Your task to perform on an android device: Show the shopping cart on bestbuy. Search for "usb-a" on bestbuy, select the first entry, add it to the cart, then select checkout. Image 0: 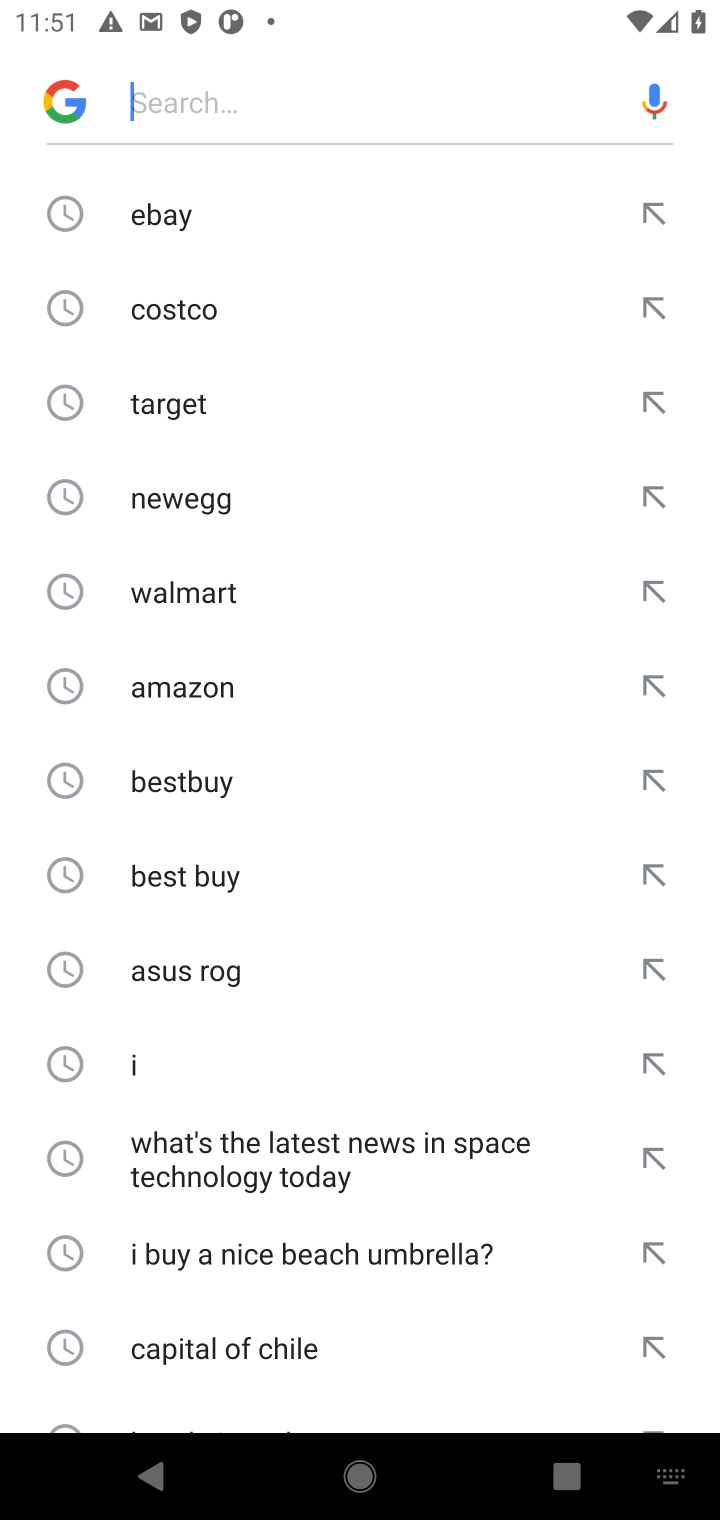
Step 0: press home button
Your task to perform on an android device: Show the shopping cart on bestbuy. Search for "usb-a" on bestbuy, select the first entry, add it to the cart, then select checkout. Image 1: 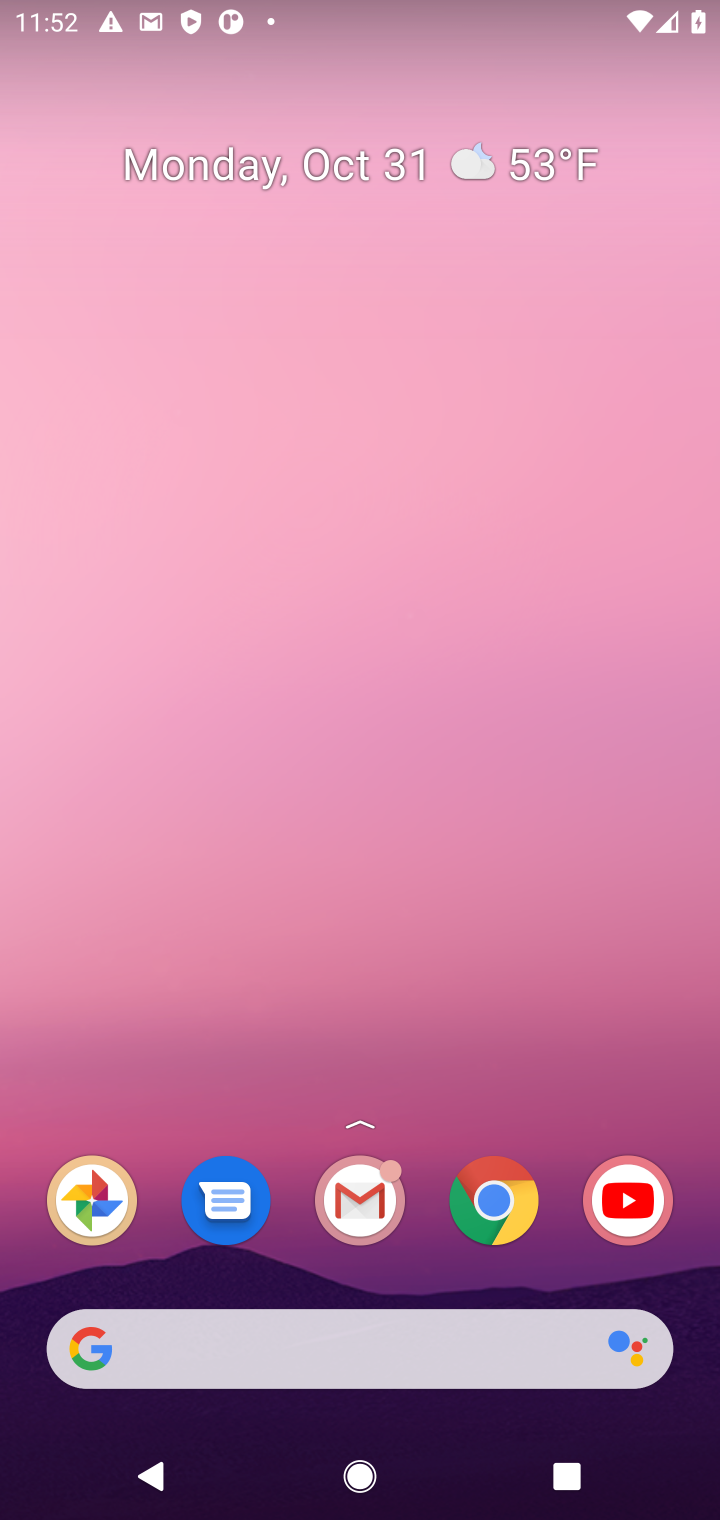
Step 1: click (499, 1209)
Your task to perform on an android device: Show the shopping cart on bestbuy. Search for "usb-a" on bestbuy, select the first entry, add it to the cart, then select checkout. Image 2: 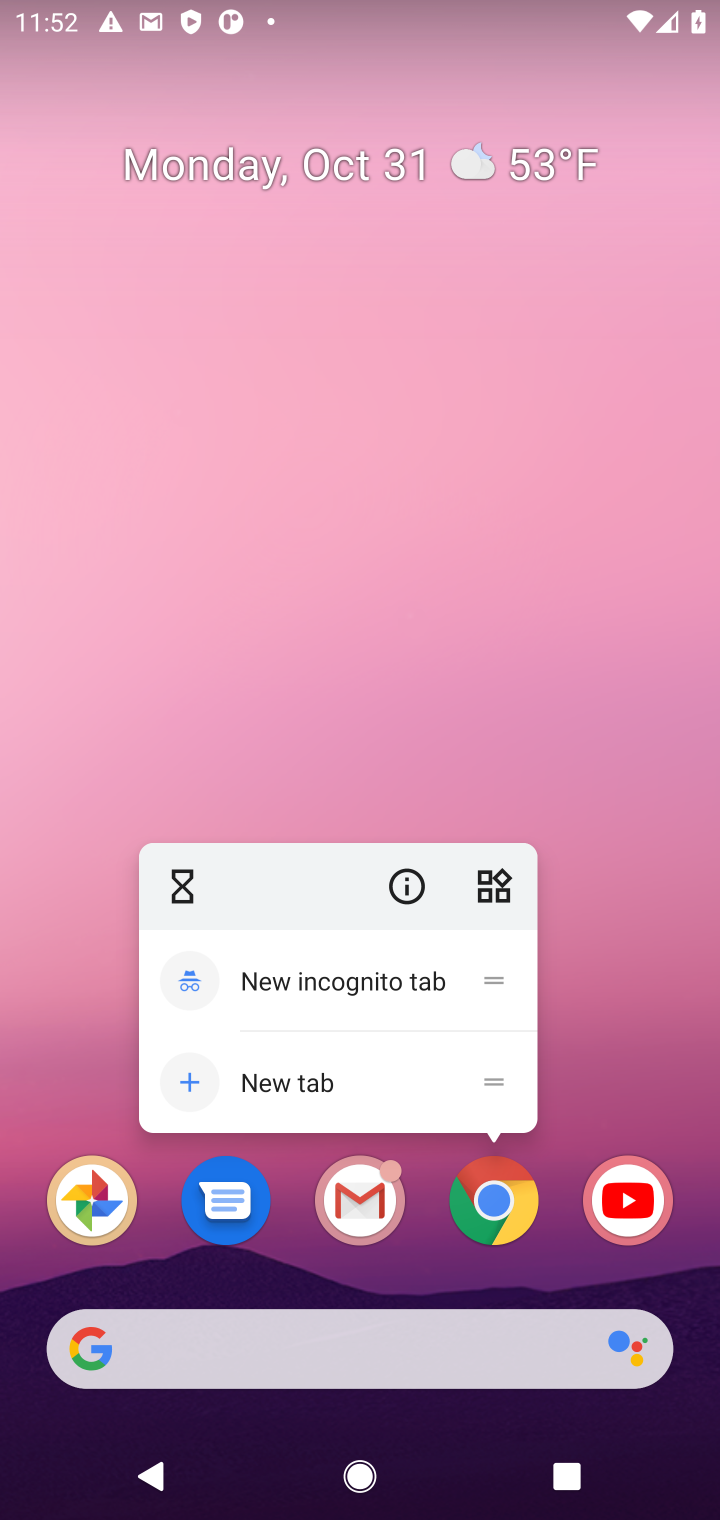
Step 2: click (499, 1209)
Your task to perform on an android device: Show the shopping cart on bestbuy. Search for "usb-a" on bestbuy, select the first entry, add it to the cart, then select checkout. Image 3: 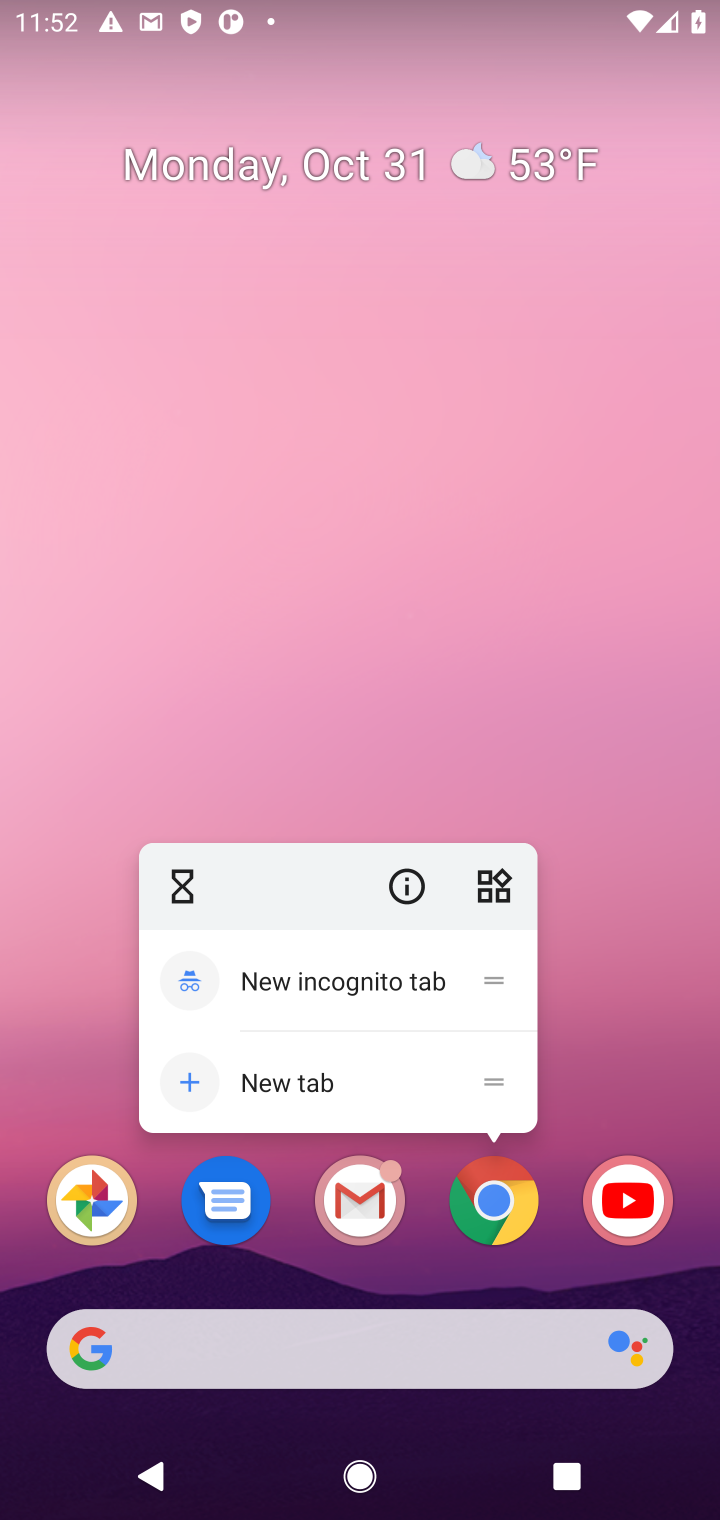
Step 3: click (486, 1227)
Your task to perform on an android device: Show the shopping cart on bestbuy. Search for "usb-a" on bestbuy, select the first entry, add it to the cart, then select checkout. Image 4: 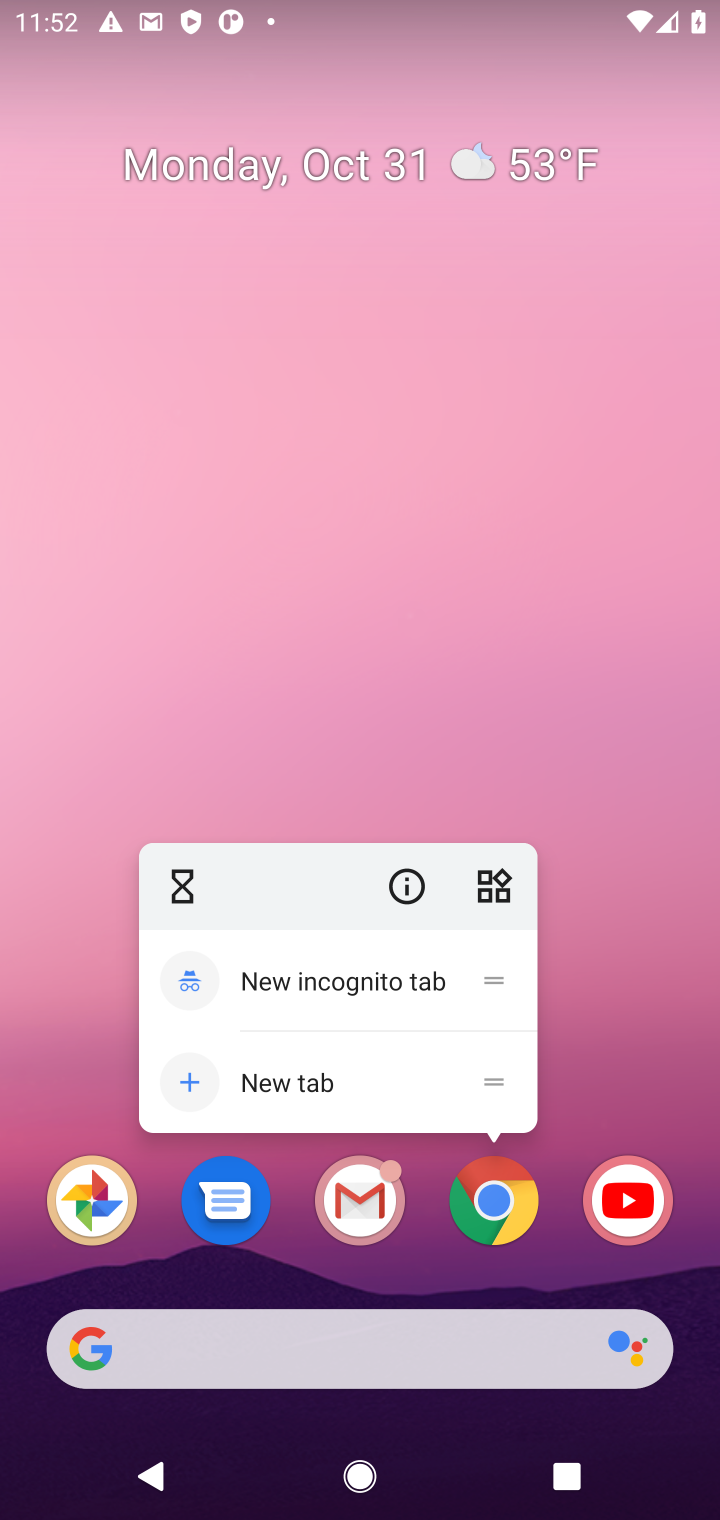
Step 4: click (495, 1240)
Your task to perform on an android device: Show the shopping cart on bestbuy. Search for "usb-a" on bestbuy, select the first entry, add it to the cart, then select checkout. Image 5: 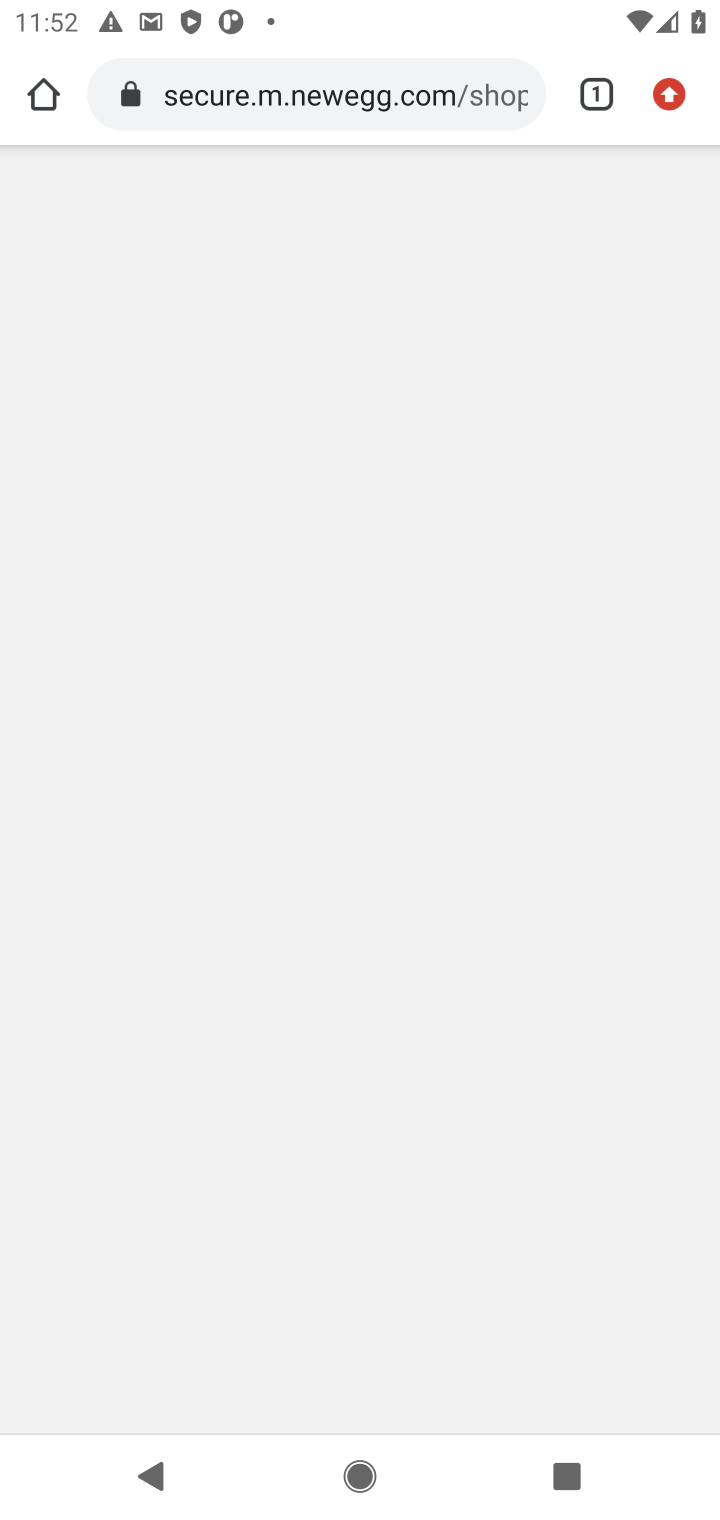
Step 5: click (269, 101)
Your task to perform on an android device: Show the shopping cart on bestbuy. Search for "usb-a" on bestbuy, select the first entry, add it to the cart, then select checkout. Image 6: 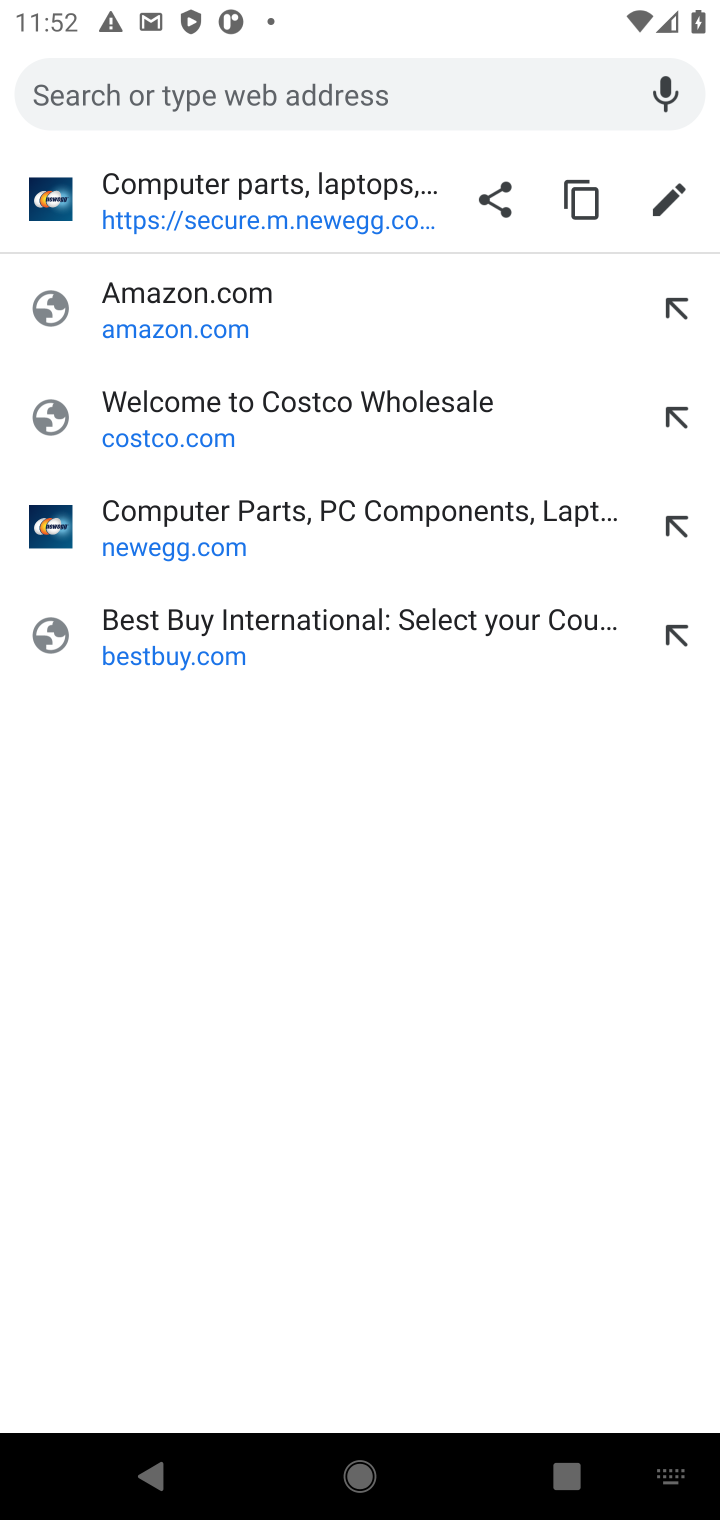
Step 6: click (238, 628)
Your task to perform on an android device: Show the shopping cart on bestbuy. Search for "usb-a" on bestbuy, select the first entry, add it to the cart, then select checkout. Image 7: 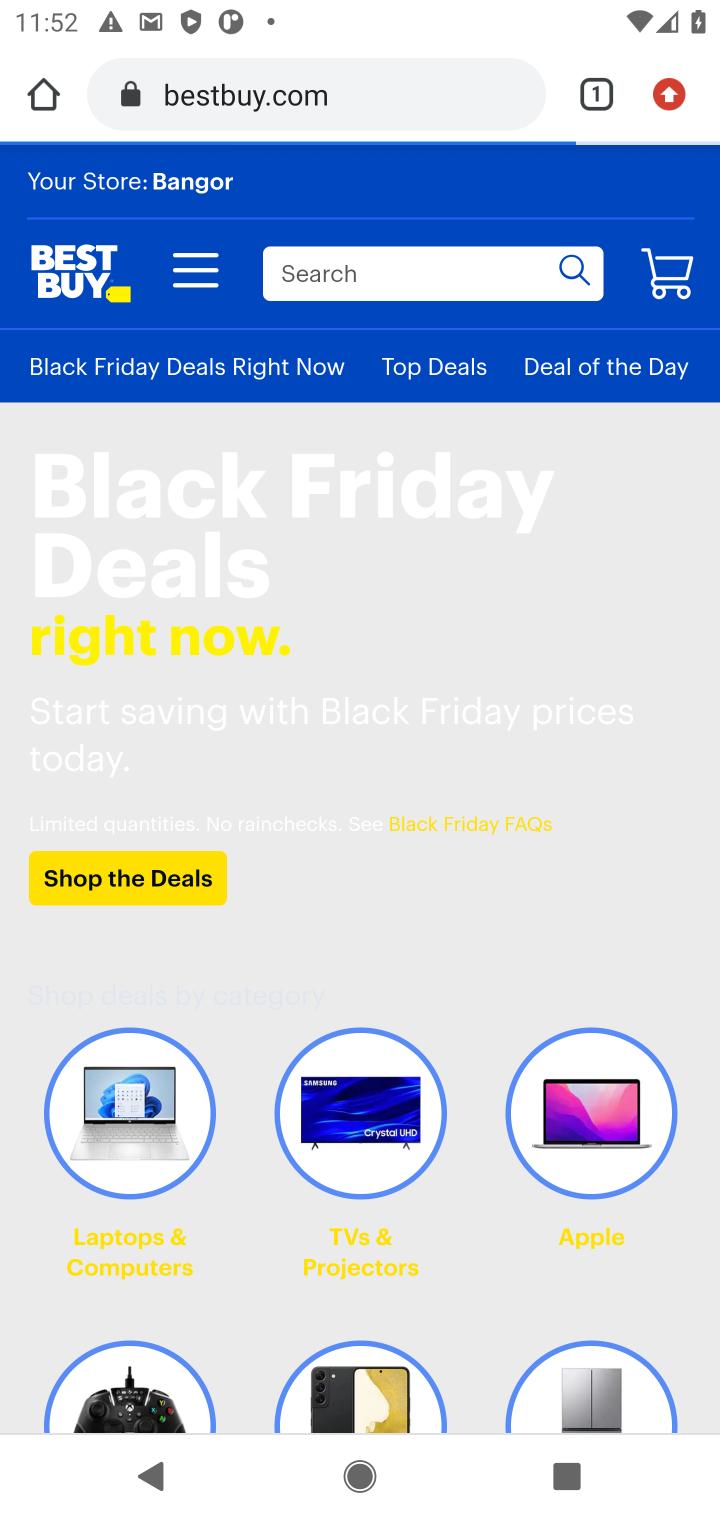
Step 7: click (370, 269)
Your task to perform on an android device: Show the shopping cart on bestbuy. Search for "usb-a" on bestbuy, select the first entry, add it to the cart, then select checkout. Image 8: 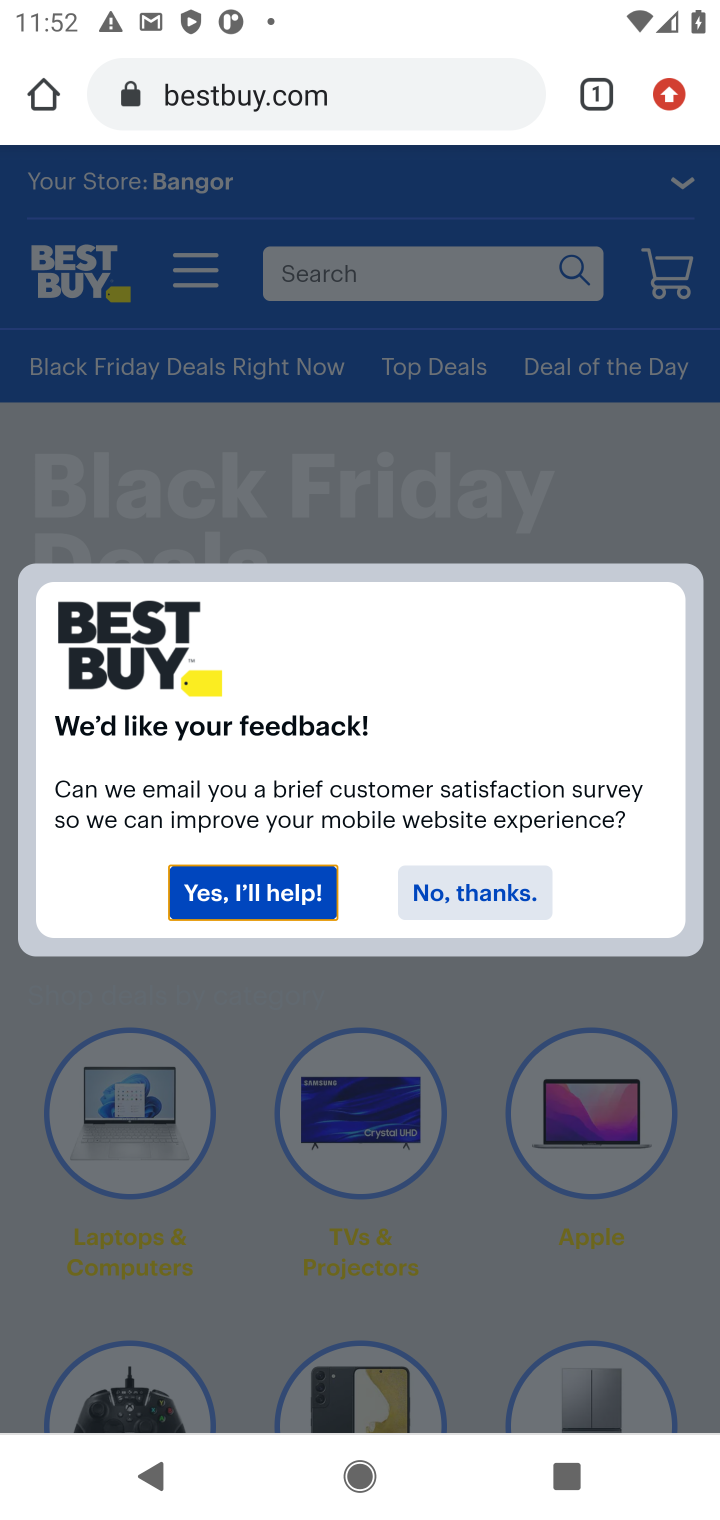
Step 8: type "usb-a"
Your task to perform on an android device: Show the shopping cart on bestbuy. Search for "usb-a" on bestbuy, select the first entry, add it to the cart, then select checkout. Image 9: 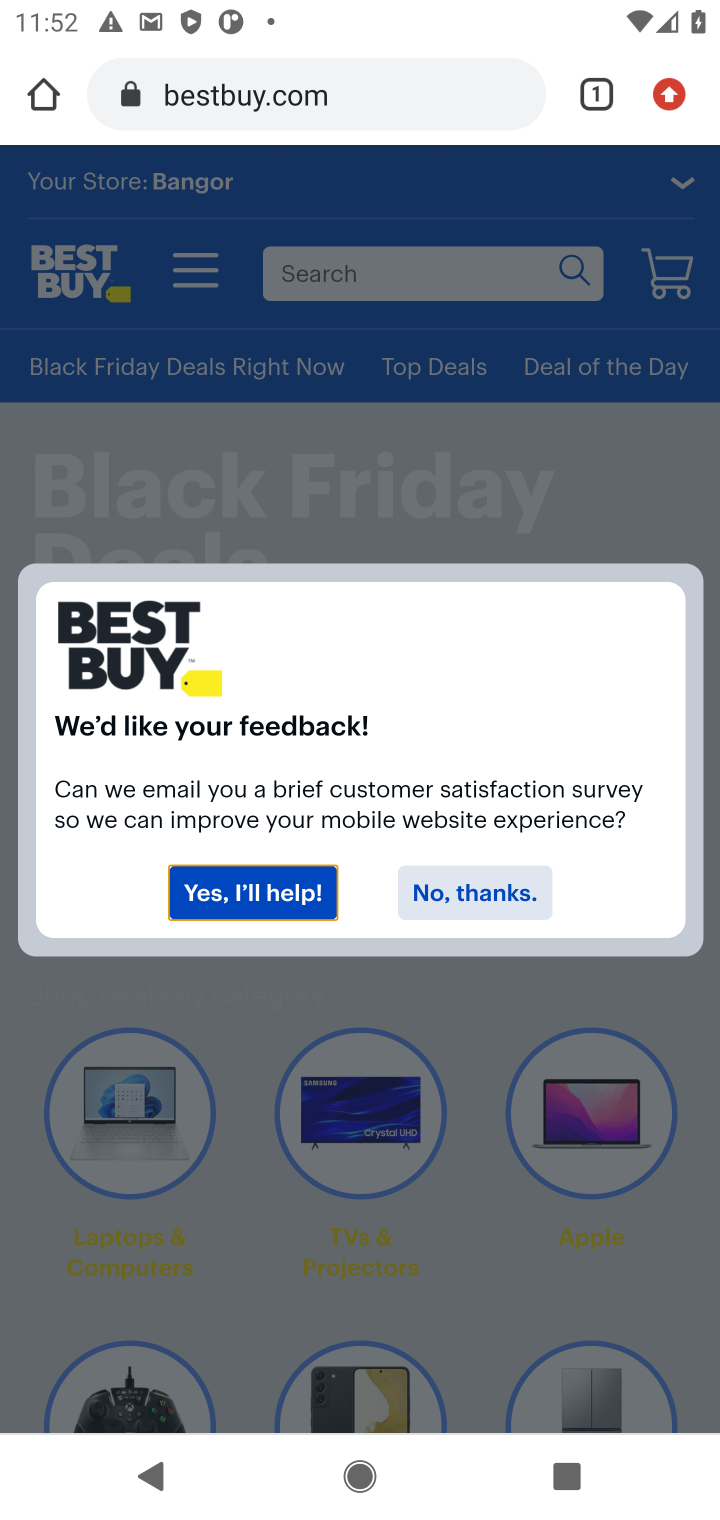
Step 9: click (423, 888)
Your task to perform on an android device: Show the shopping cart on bestbuy. Search for "usb-a" on bestbuy, select the first entry, add it to the cart, then select checkout. Image 10: 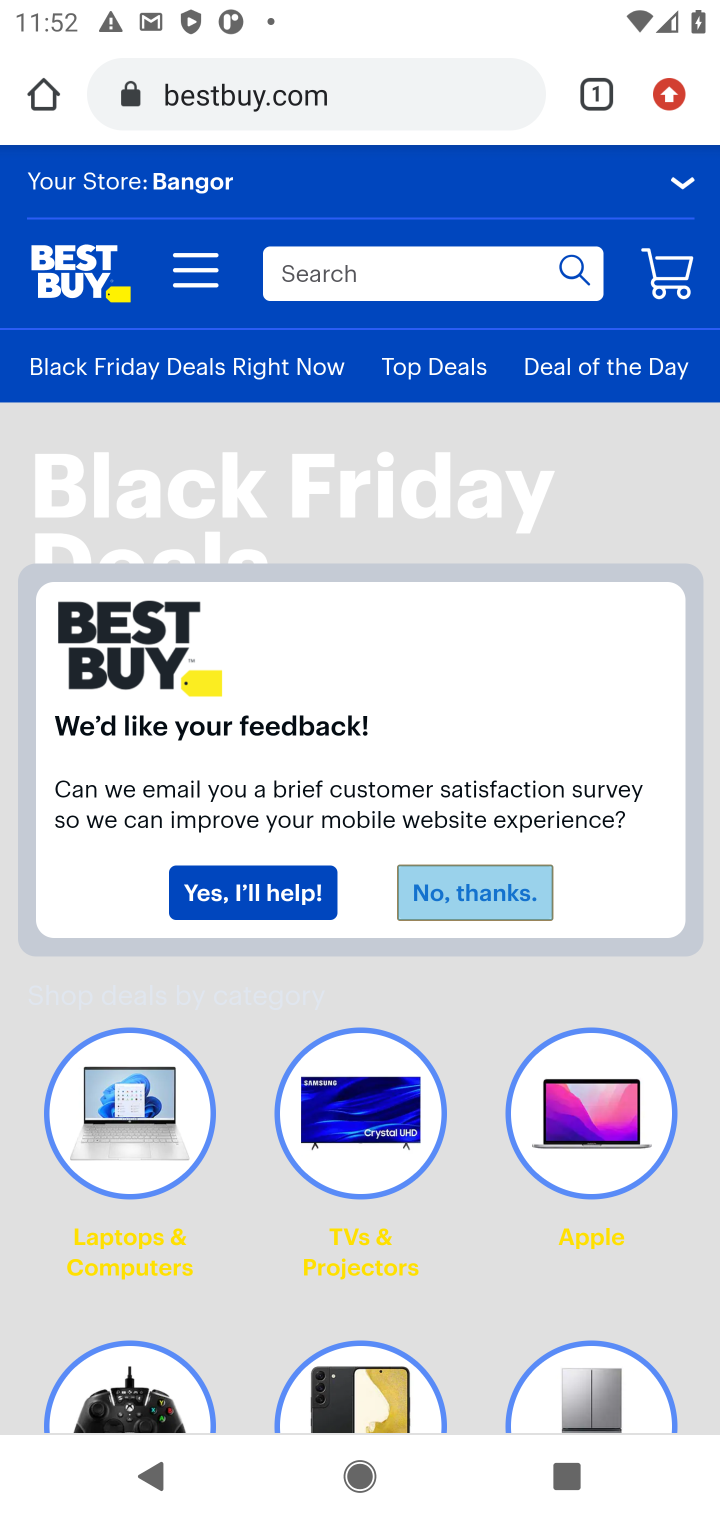
Step 10: click (348, 269)
Your task to perform on an android device: Show the shopping cart on bestbuy. Search for "usb-a" on bestbuy, select the first entry, add it to the cart, then select checkout. Image 11: 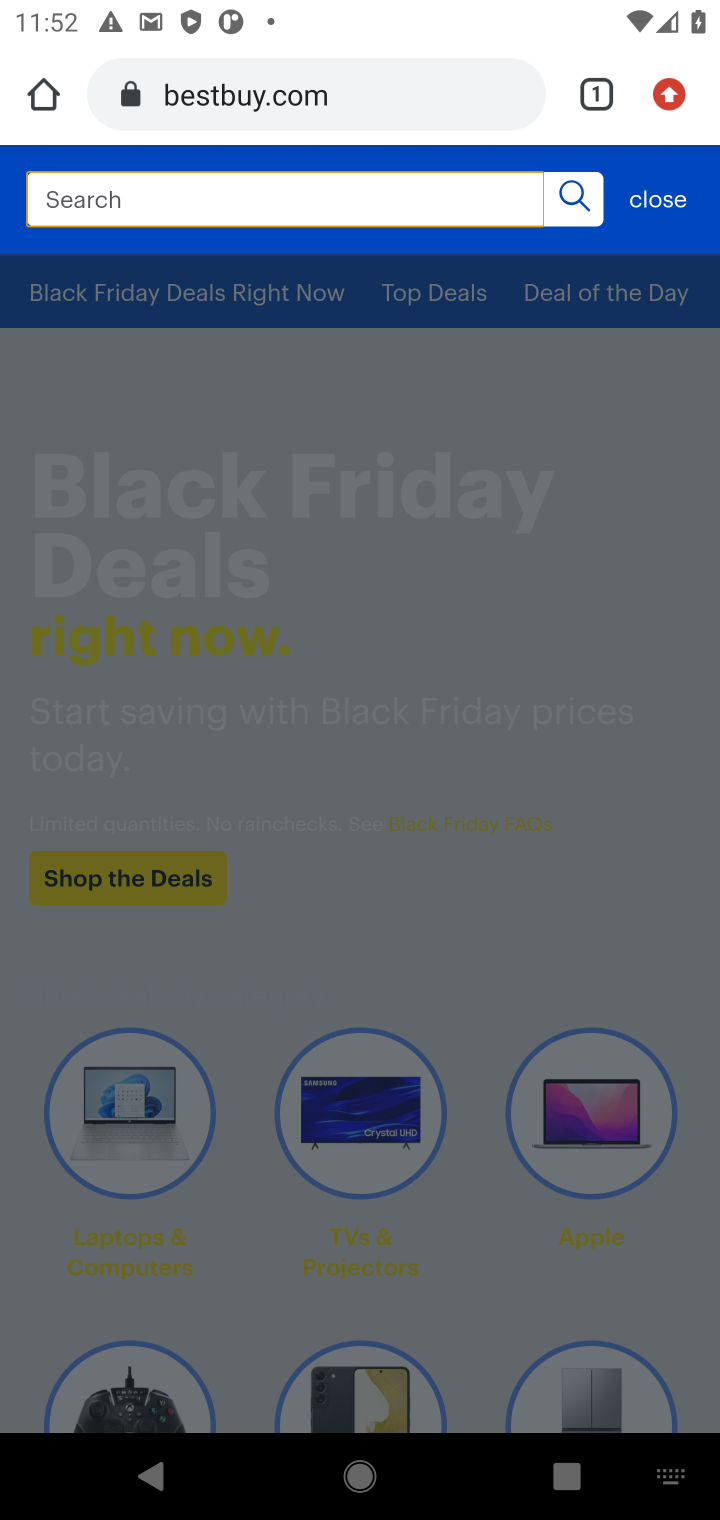
Step 11: click (468, 884)
Your task to perform on an android device: Show the shopping cart on bestbuy. Search for "usb-a" on bestbuy, select the first entry, add it to the cart, then select checkout. Image 12: 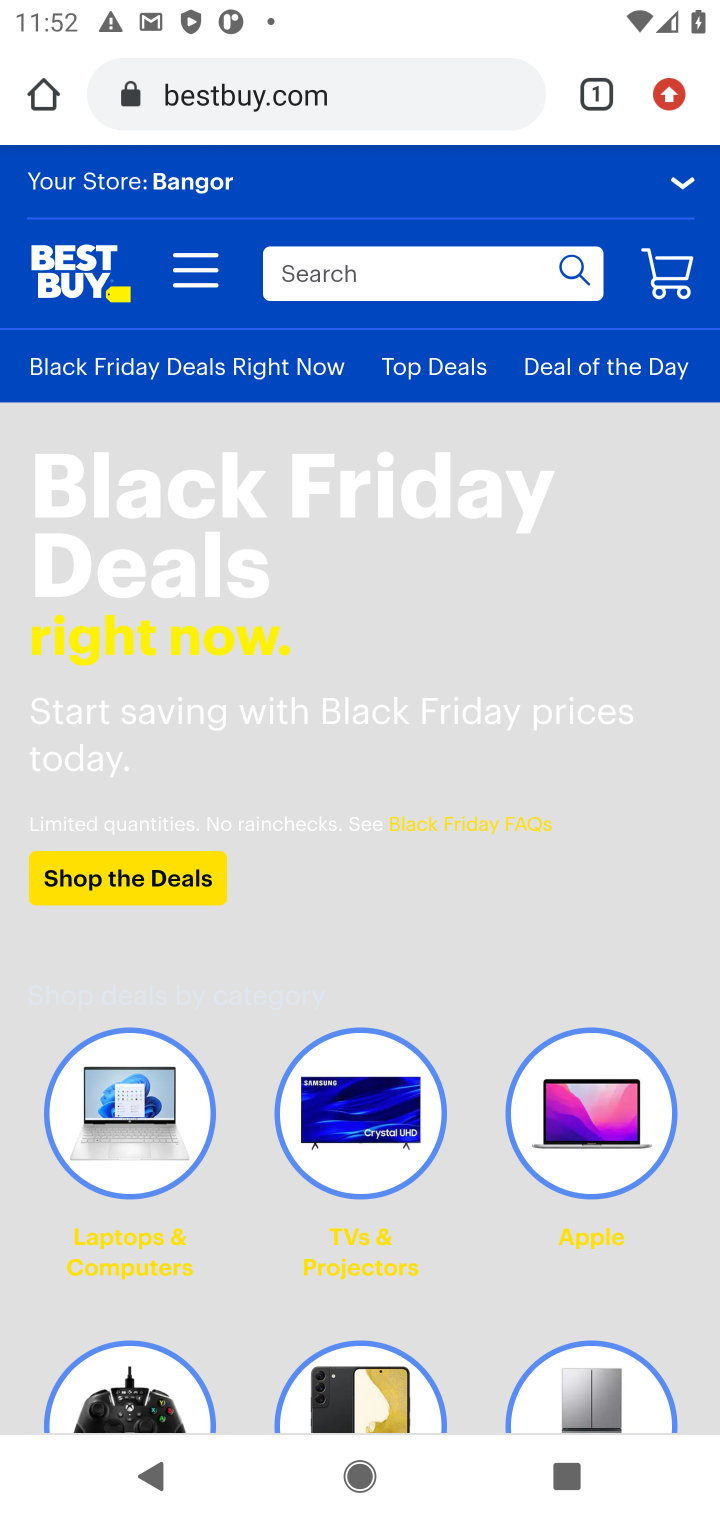
Step 12: click (383, 276)
Your task to perform on an android device: Show the shopping cart on bestbuy. Search for "usb-a" on bestbuy, select the first entry, add it to the cart, then select checkout. Image 13: 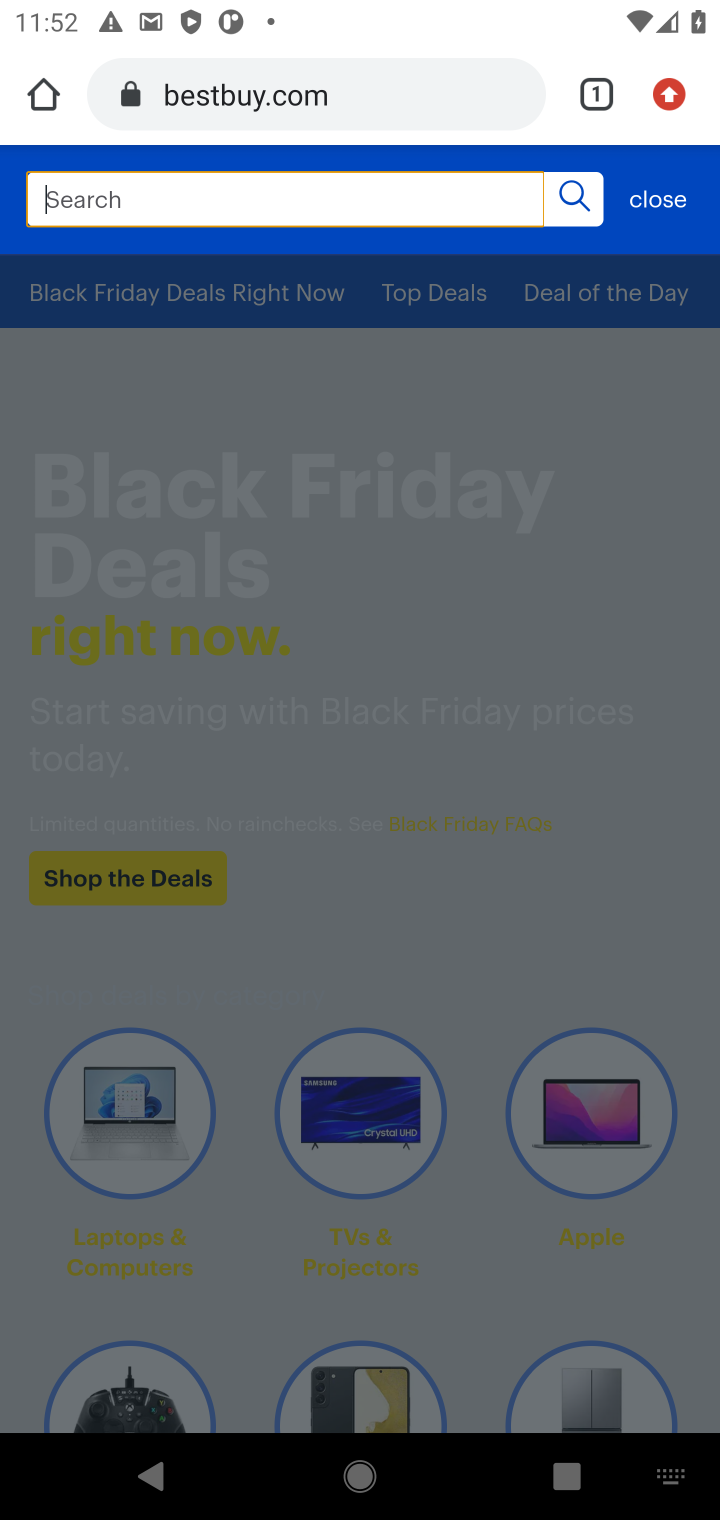
Step 13: type "usb-a"
Your task to perform on an android device: Show the shopping cart on bestbuy. Search for "usb-a" on bestbuy, select the first entry, add it to the cart, then select checkout. Image 14: 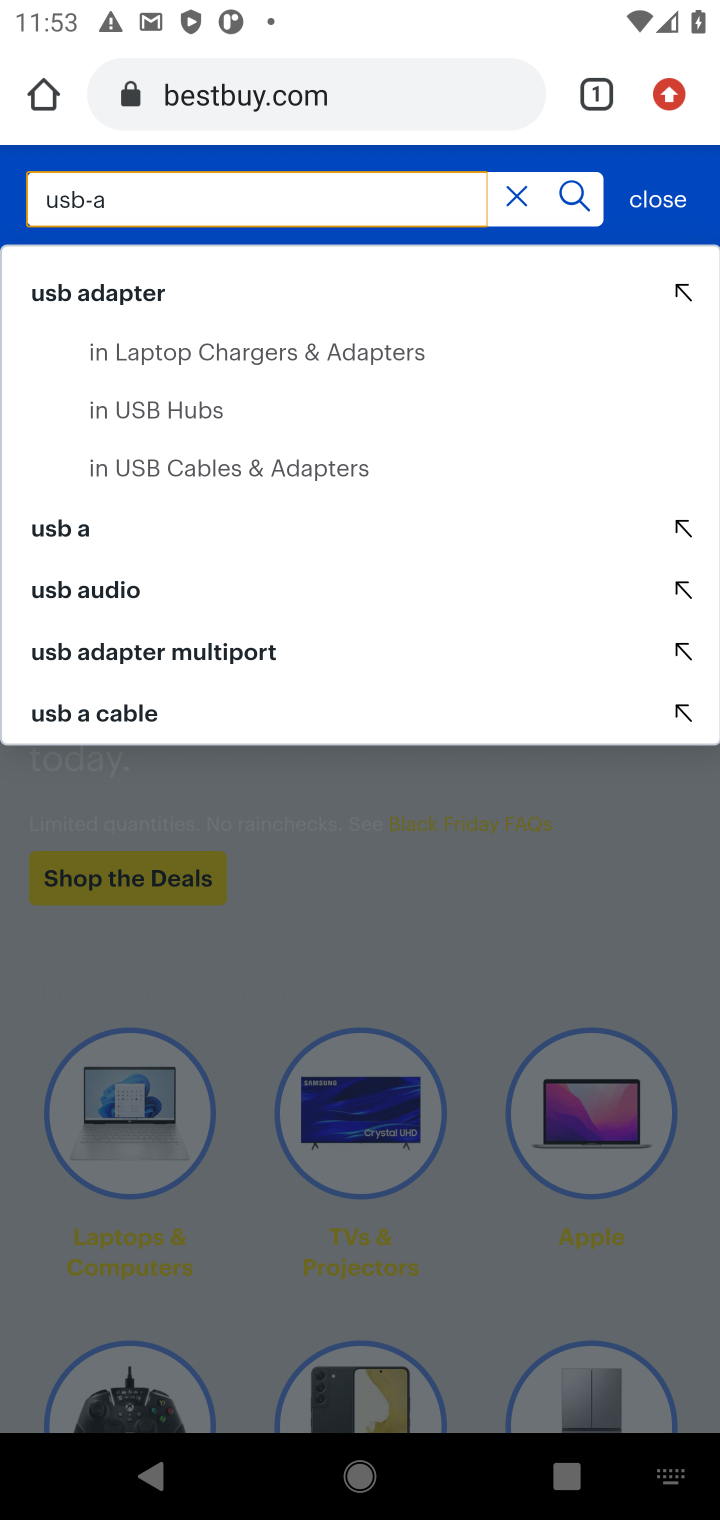
Step 14: click (571, 205)
Your task to perform on an android device: Show the shopping cart on bestbuy. Search for "usb-a" on bestbuy, select the first entry, add it to the cart, then select checkout. Image 15: 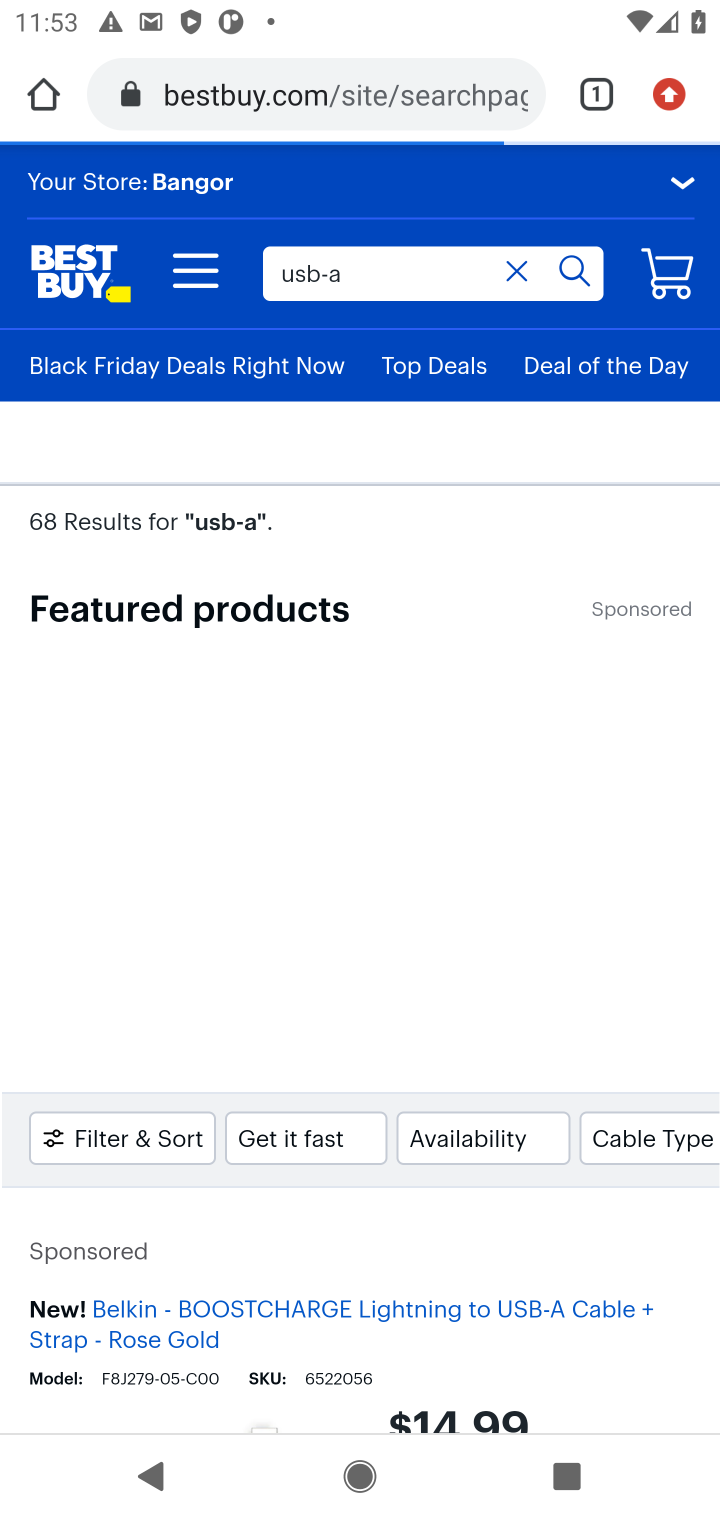
Step 15: drag from (530, 1159) to (554, 483)
Your task to perform on an android device: Show the shopping cart on bestbuy. Search for "usb-a" on bestbuy, select the first entry, add it to the cart, then select checkout. Image 16: 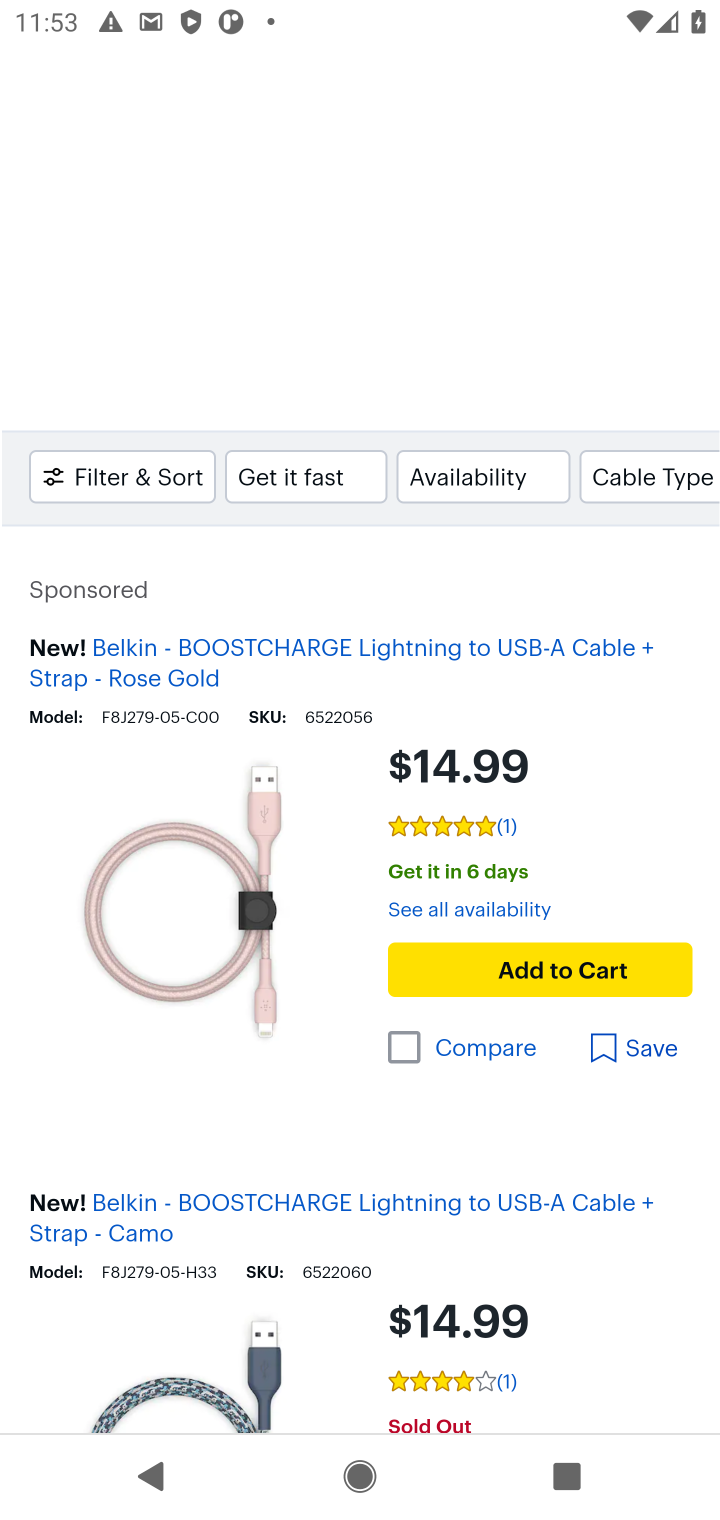
Step 16: click (300, 656)
Your task to perform on an android device: Show the shopping cart on bestbuy. Search for "usb-a" on bestbuy, select the first entry, add it to the cart, then select checkout. Image 17: 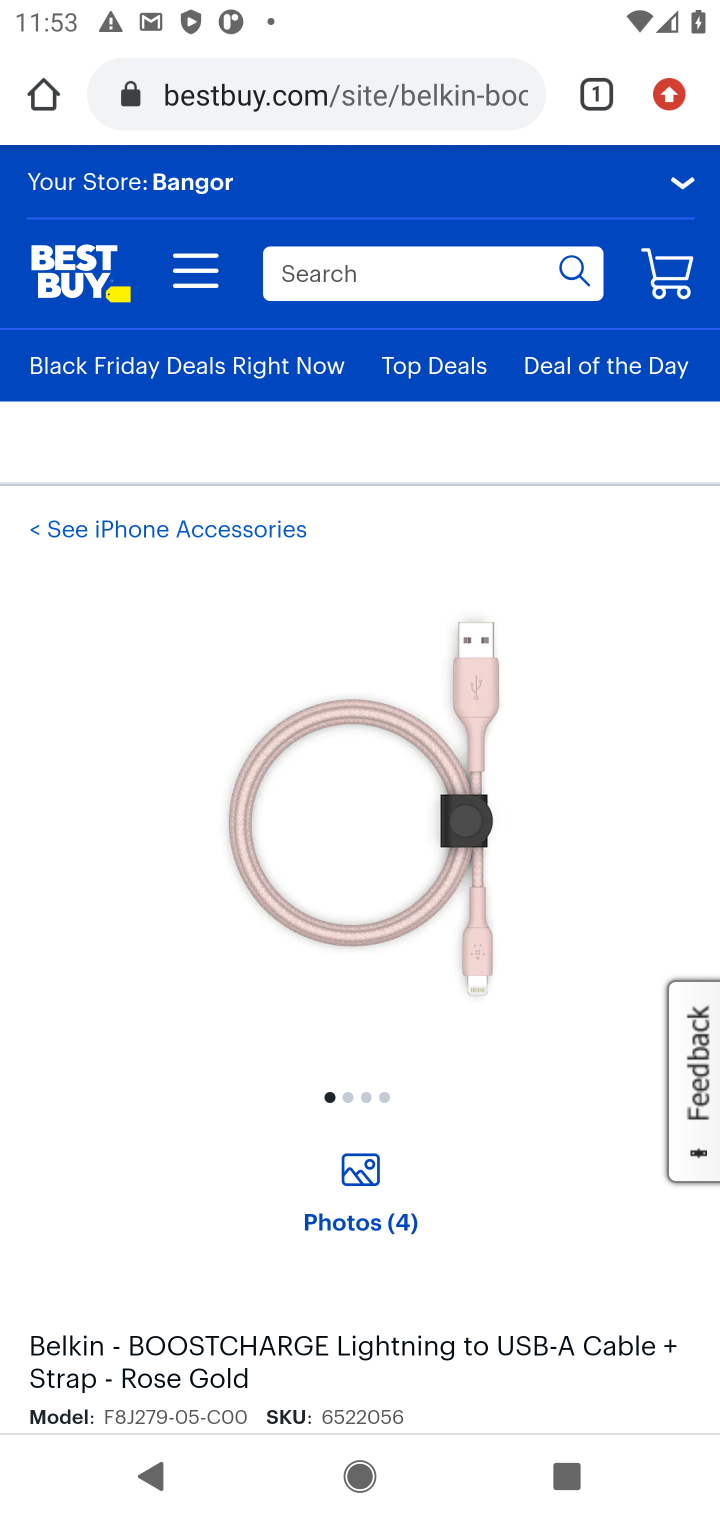
Step 17: click (430, 493)
Your task to perform on an android device: Show the shopping cart on bestbuy. Search for "usb-a" on bestbuy, select the first entry, add it to the cart, then select checkout. Image 18: 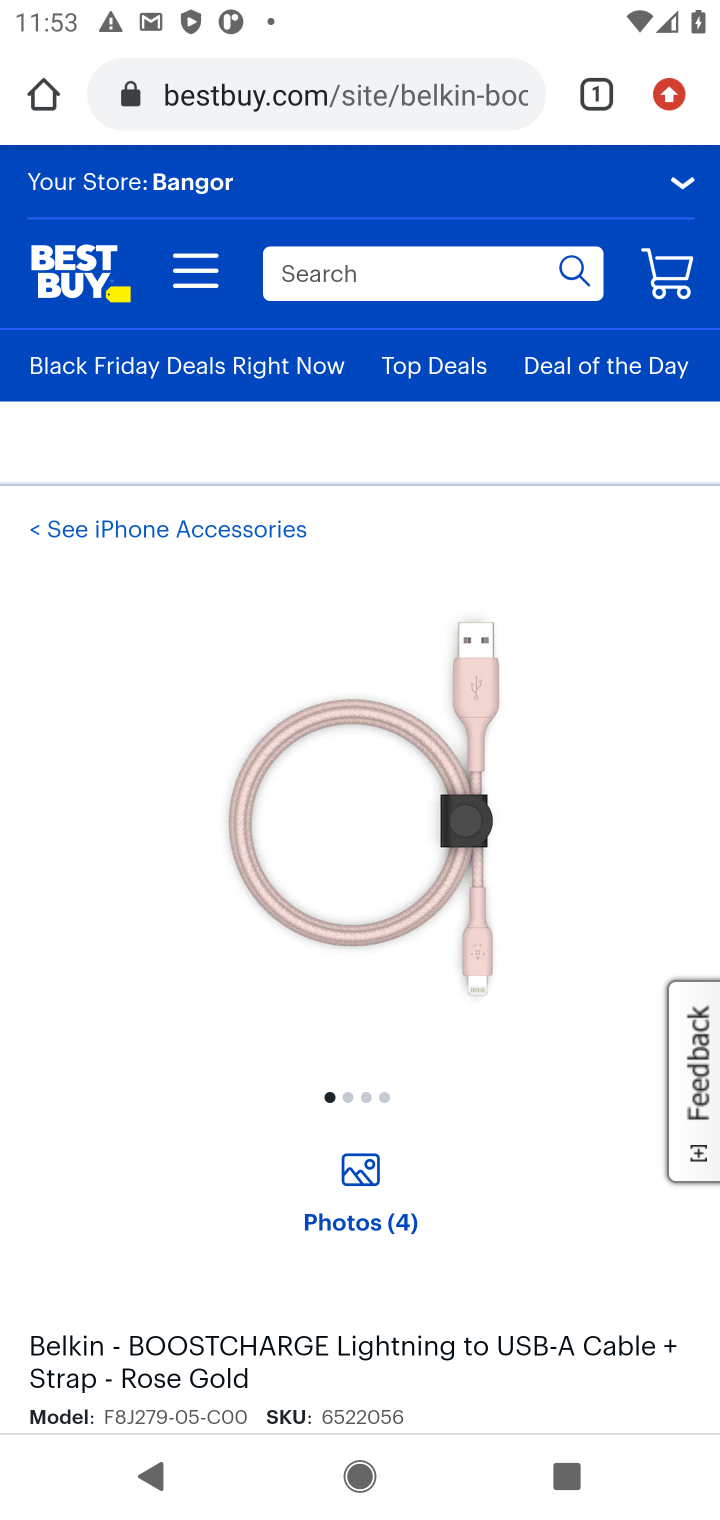
Step 18: click (425, 479)
Your task to perform on an android device: Show the shopping cart on bestbuy. Search for "usb-a" on bestbuy, select the first entry, add it to the cart, then select checkout. Image 19: 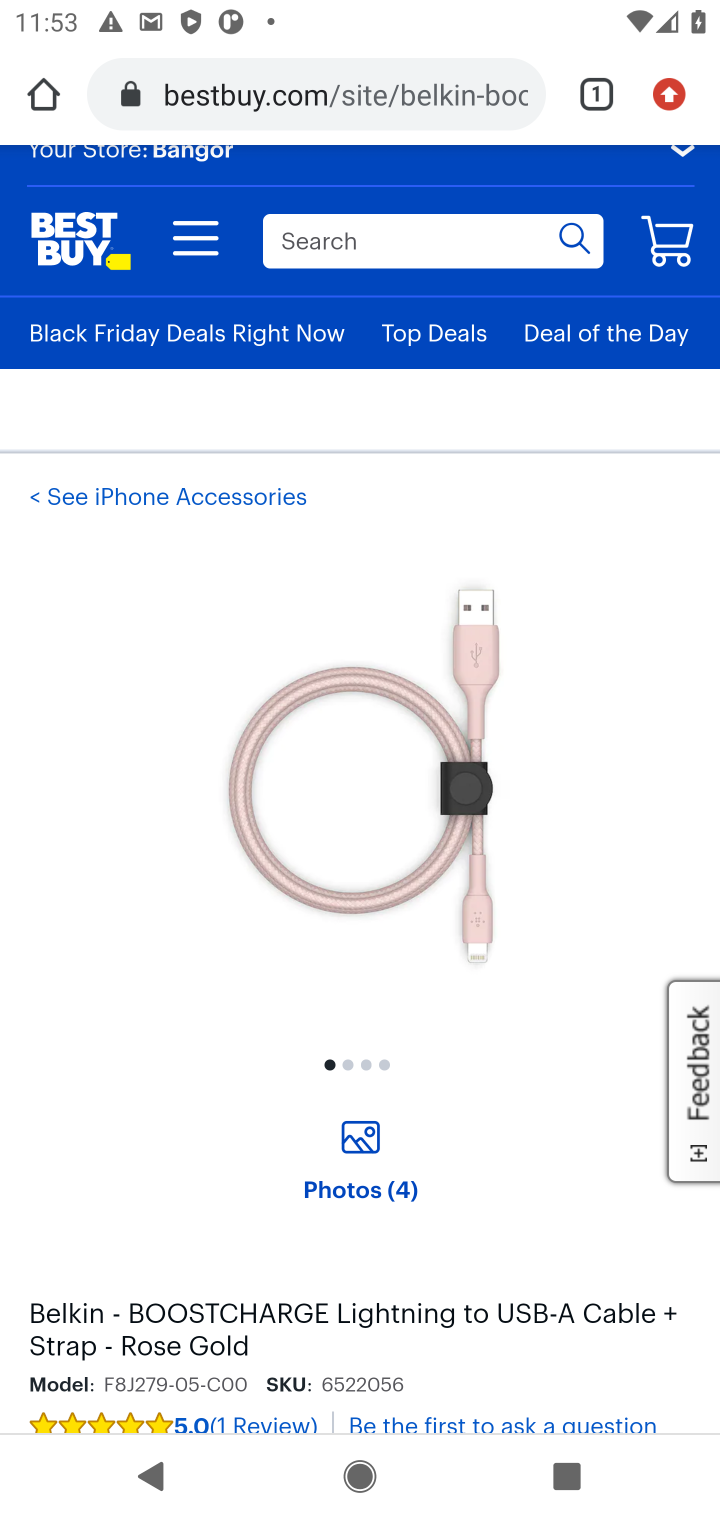
Step 19: click (659, 259)
Your task to perform on an android device: Show the shopping cart on bestbuy. Search for "usb-a" on bestbuy, select the first entry, add it to the cart, then select checkout. Image 20: 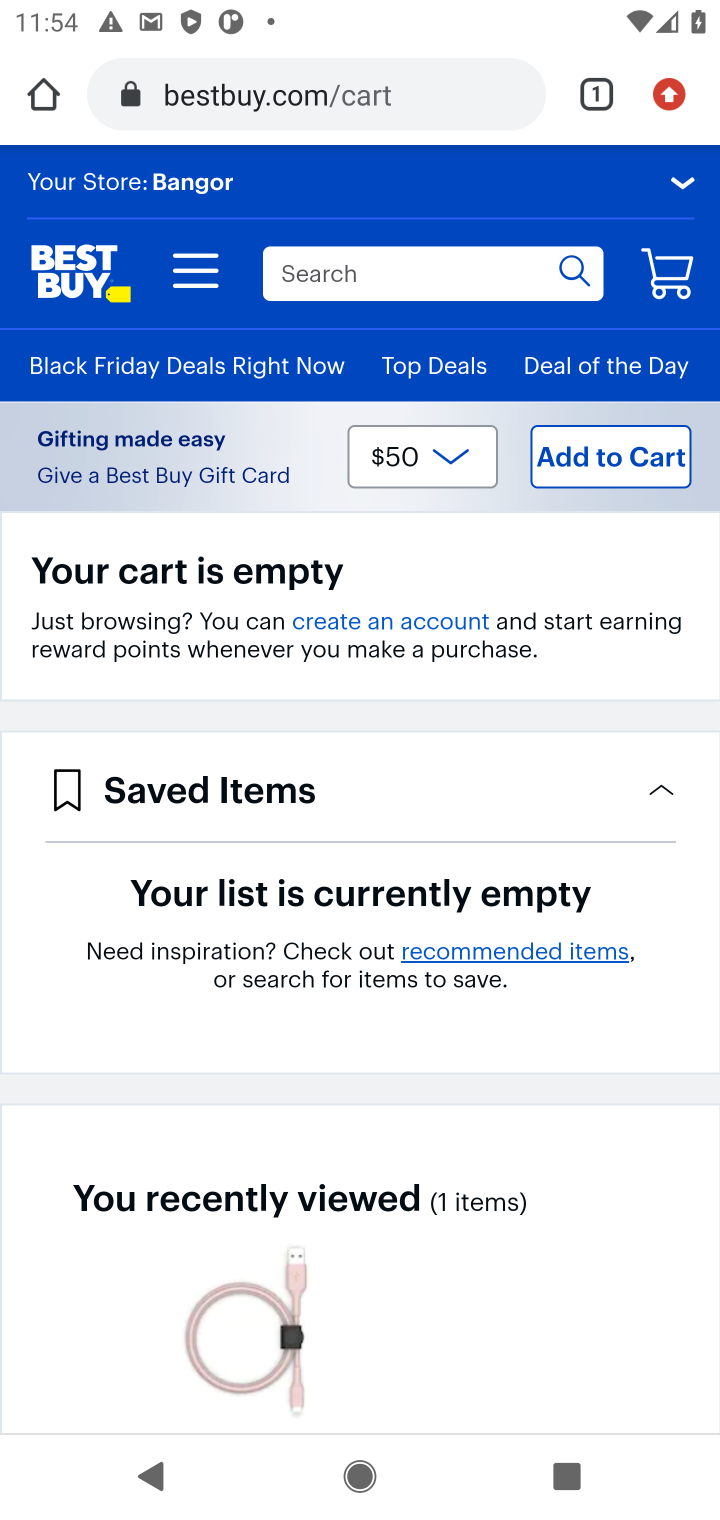
Step 20: drag from (317, 820) to (349, 515)
Your task to perform on an android device: Show the shopping cart on bestbuy. Search for "usb-a" on bestbuy, select the first entry, add it to the cart, then select checkout. Image 21: 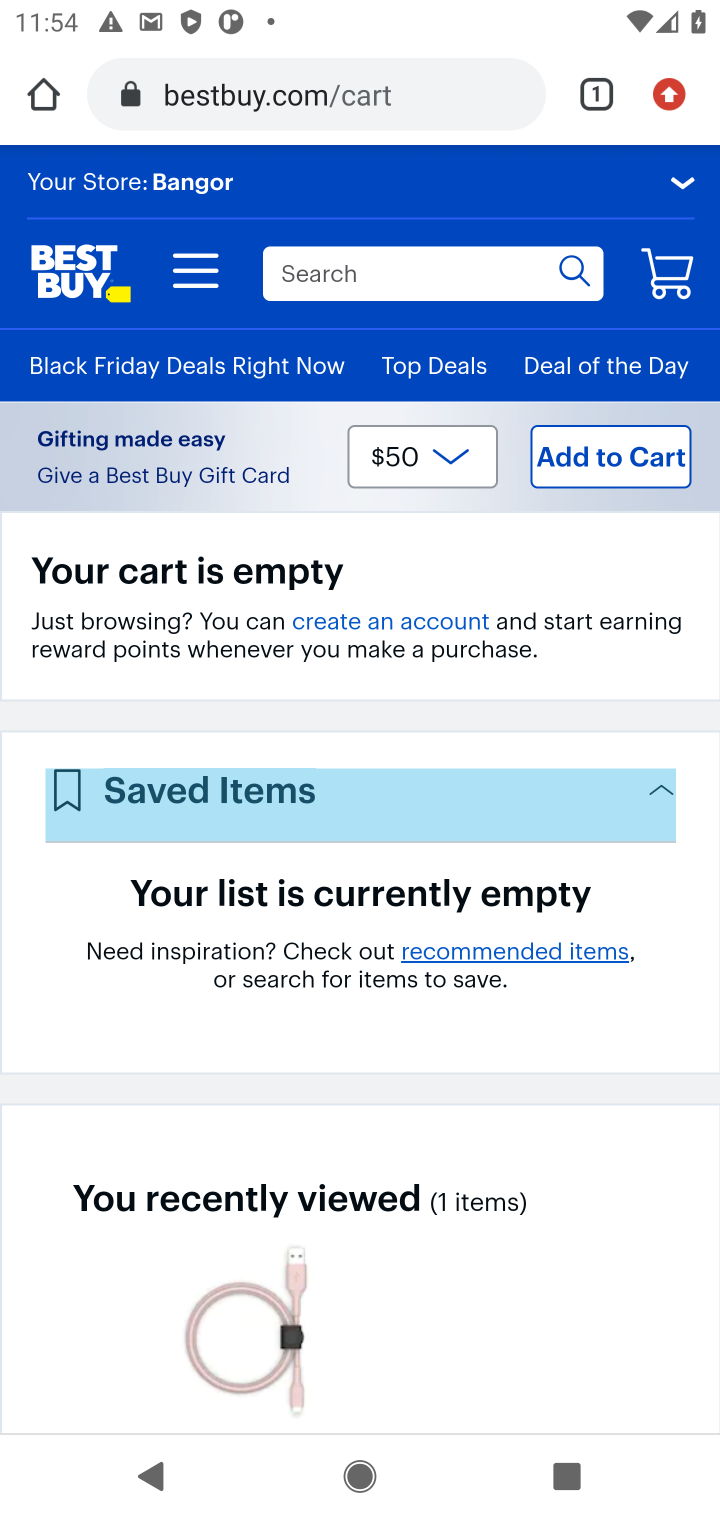
Step 21: drag from (432, 952) to (520, 655)
Your task to perform on an android device: Show the shopping cart on bestbuy. Search for "usb-a" on bestbuy, select the first entry, add it to the cart, then select checkout. Image 22: 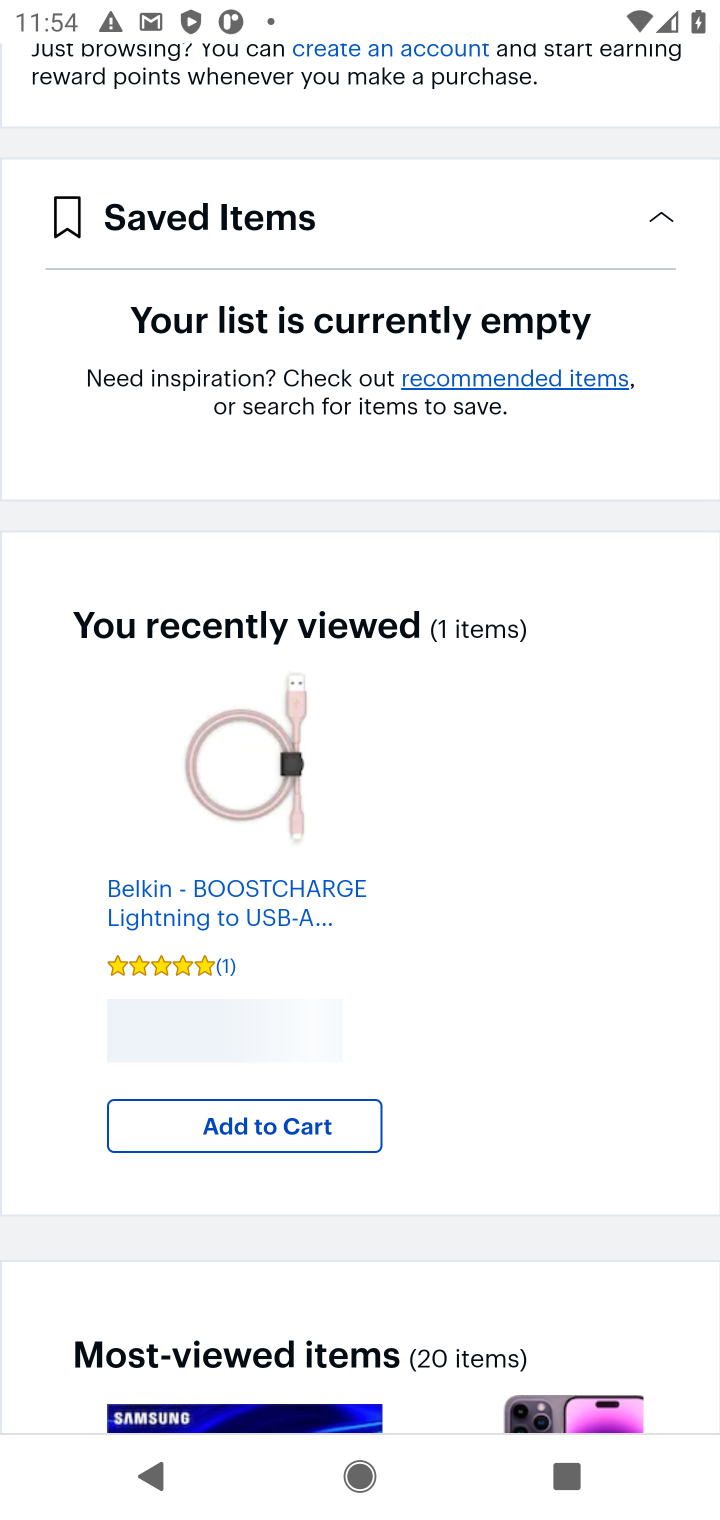
Step 22: click (337, 1123)
Your task to perform on an android device: Show the shopping cart on bestbuy. Search for "usb-a" on bestbuy, select the first entry, add it to the cart, then select checkout. Image 23: 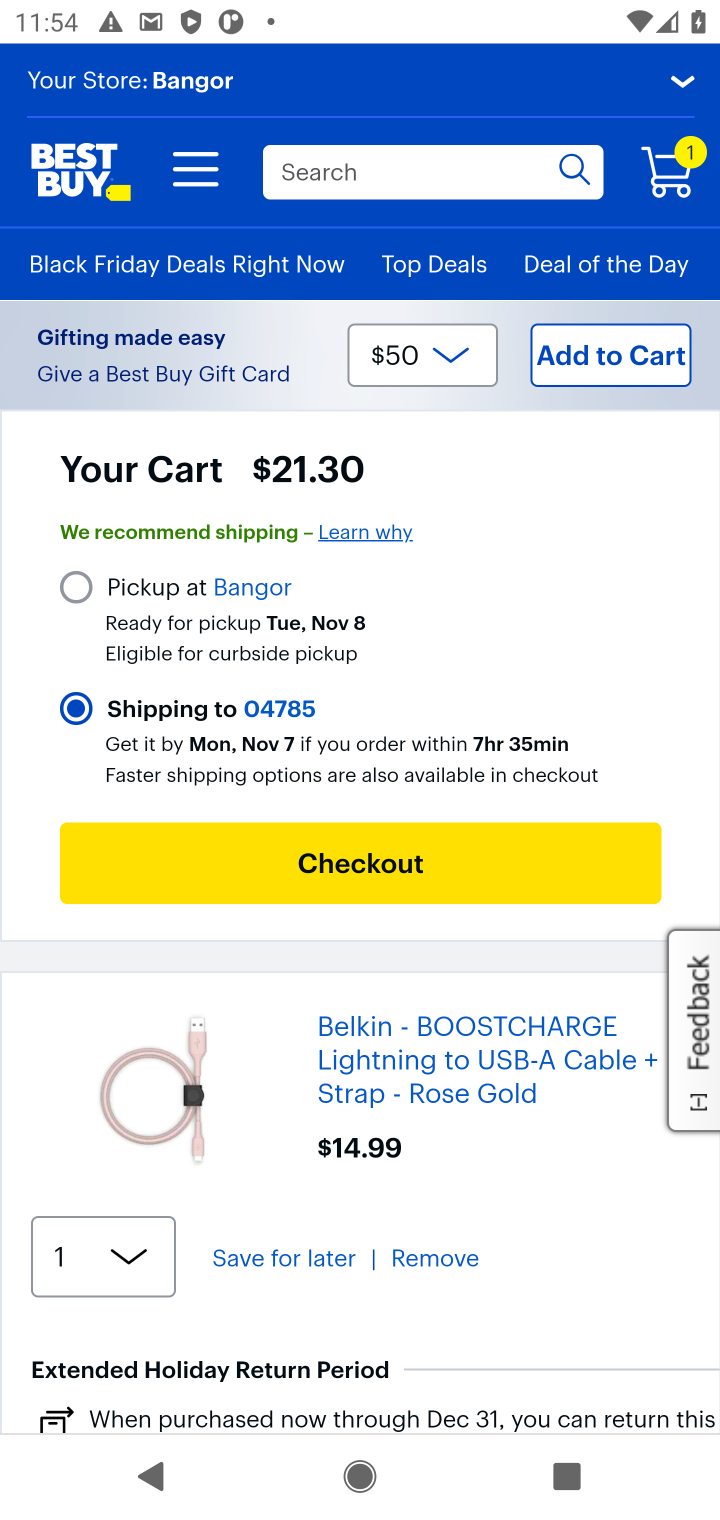
Step 23: click (383, 1178)
Your task to perform on an android device: Show the shopping cart on bestbuy. Search for "usb-a" on bestbuy, select the first entry, add it to the cart, then select checkout. Image 24: 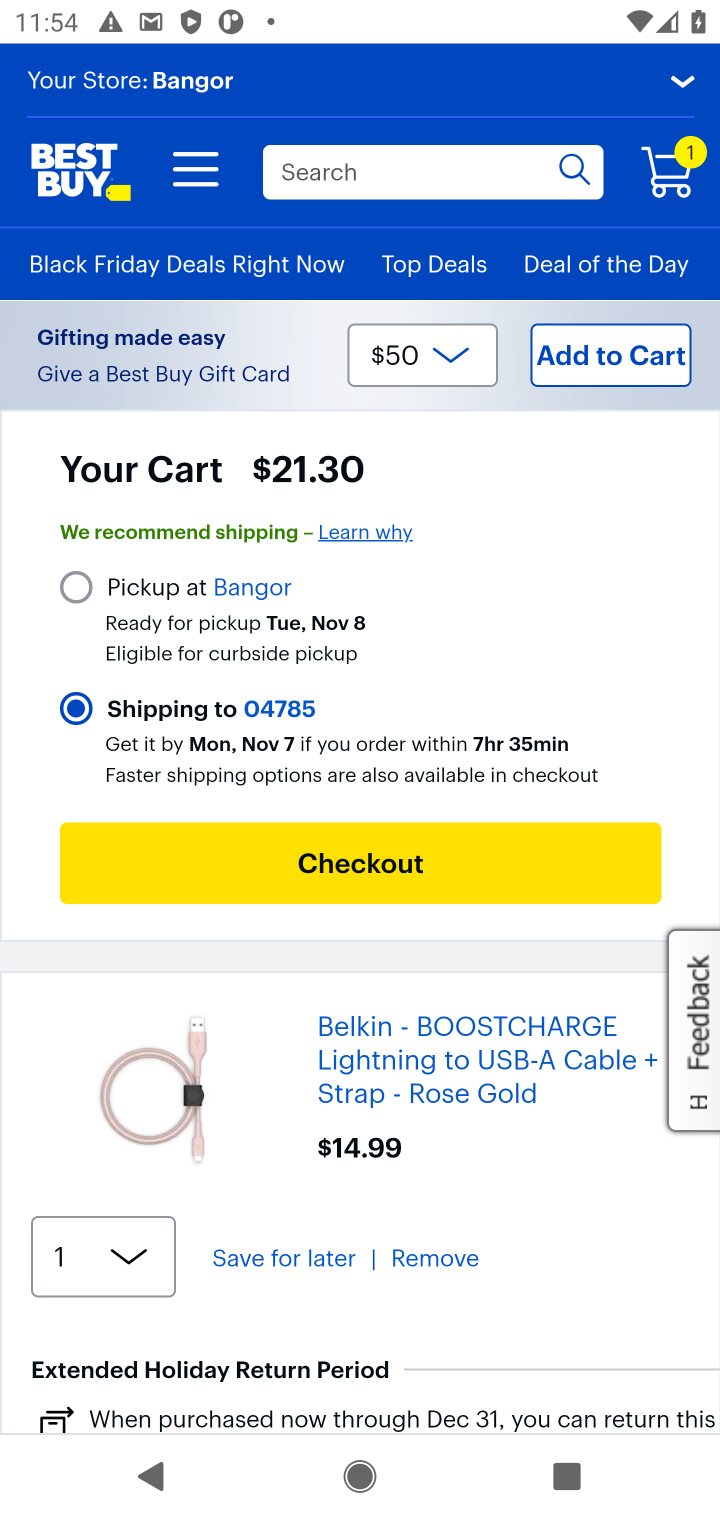
Step 24: click (678, 183)
Your task to perform on an android device: Show the shopping cart on bestbuy. Search for "usb-a" on bestbuy, select the first entry, add it to the cart, then select checkout. Image 25: 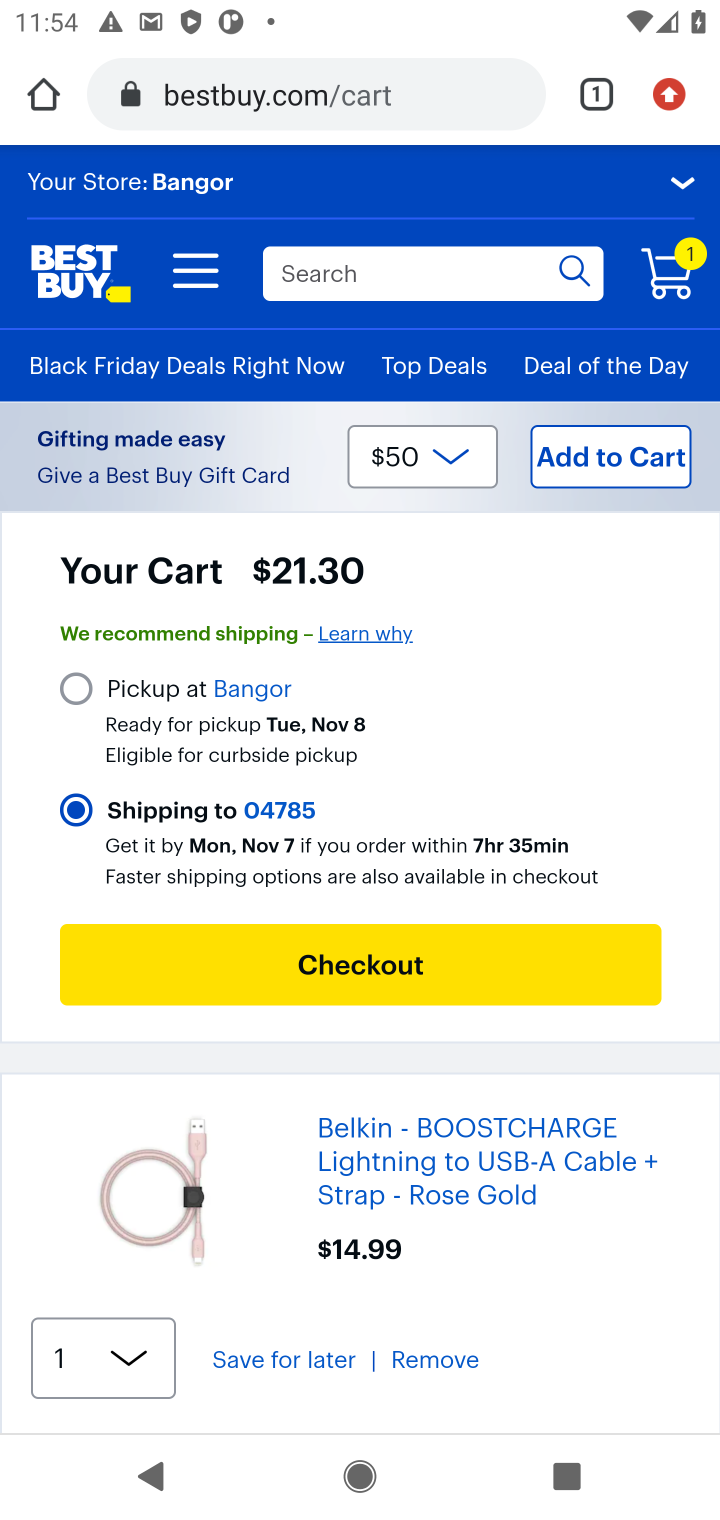
Step 25: click (688, 276)
Your task to perform on an android device: Show the shopping cart on bestbuy. Search for "usb-a" on bestbuy, select the first entry, add it to the cart, then select checkout. Image 26: 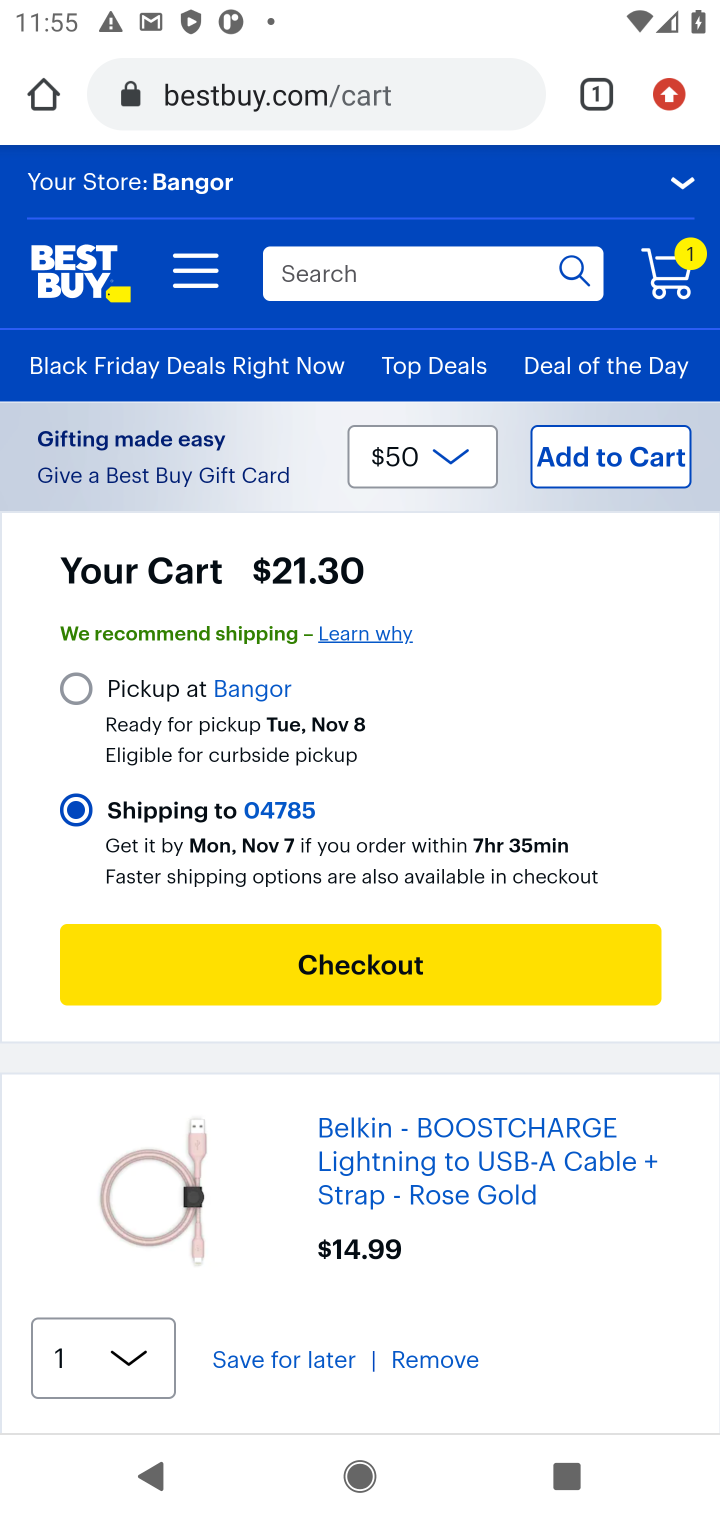
Step 26: click (488, 974)
Your task to perform on an android device: Show the shopping cart on bestbuy. Search for "usb-a" on bestbuy, select the first entry, add it to the cart, then select checkout. Image 27: 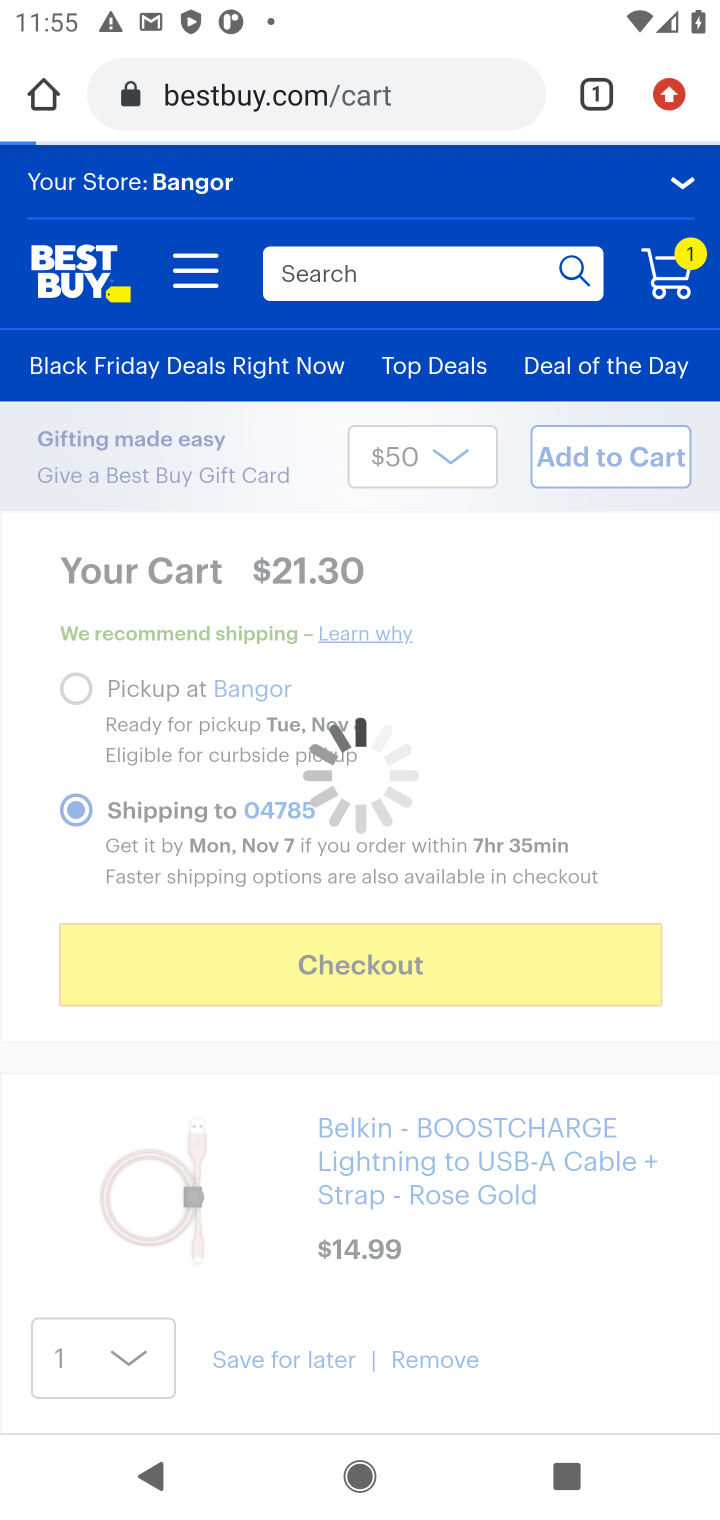
Step 27: task complete